Your task to perform on an android device: toggle show notifications on the lock screen Image 0: 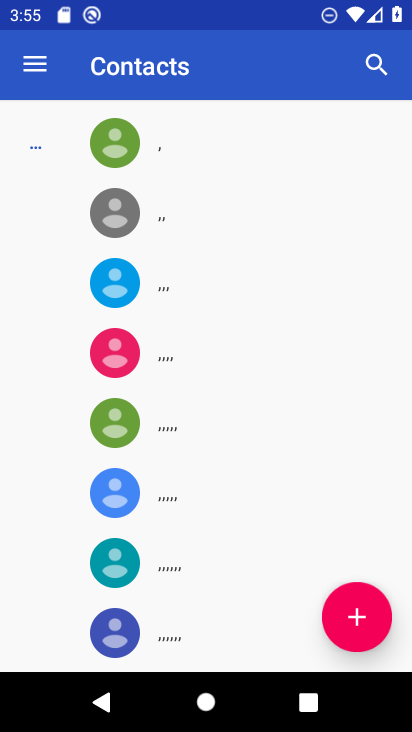
Step 0: press home button
Your task to perform on an android device: toggle show notifications on the lock screen Image 1: 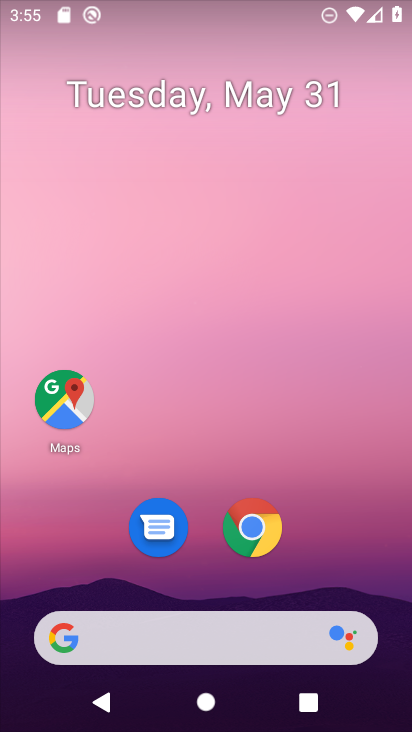
Step 1: drag from (208, 592) to (222, 7)
Your task to perform on an android device: toggle show notifications on the lock screen Image 2: 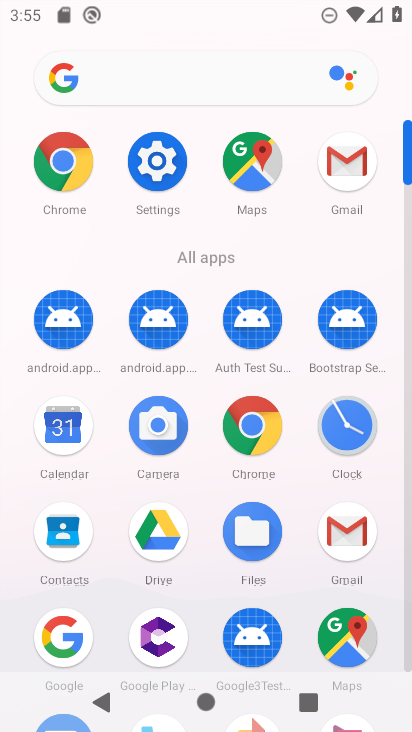
Step 2: click (155, 182)
Your task to perform on an android device: toggle show notifications on the lock screen Image 3: 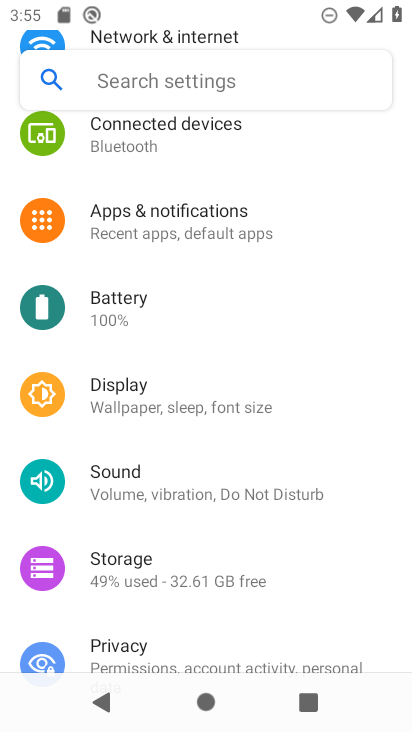
Step 3: click (134, 231)
Your task to perform on an android device: toggle show notifications on the lock screen Image 4: 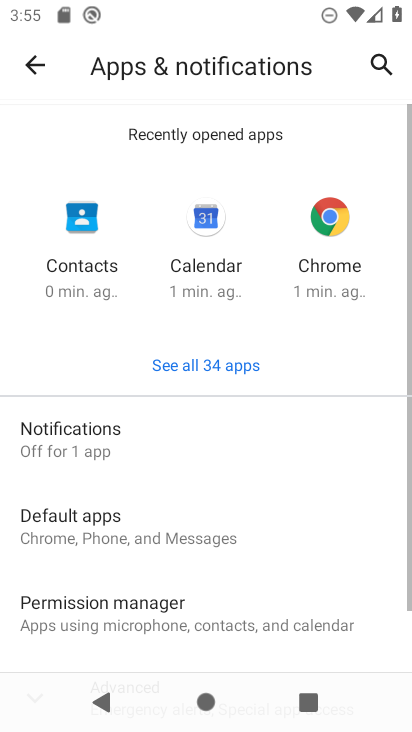
Step 4: click (58, 430)
Your task to perform on an android device: toggle show notifications on the lock screen Image 5: 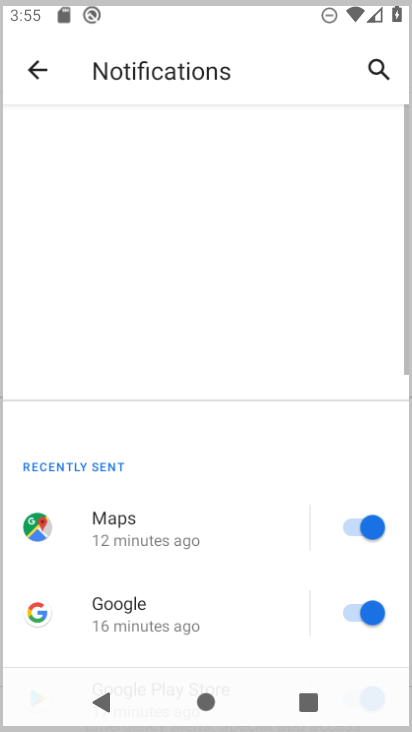
Step 5: drag from (265, 659) to (243, 64)
Your task to perform on an android device: toggle show notifications on the lock screen Image 6: 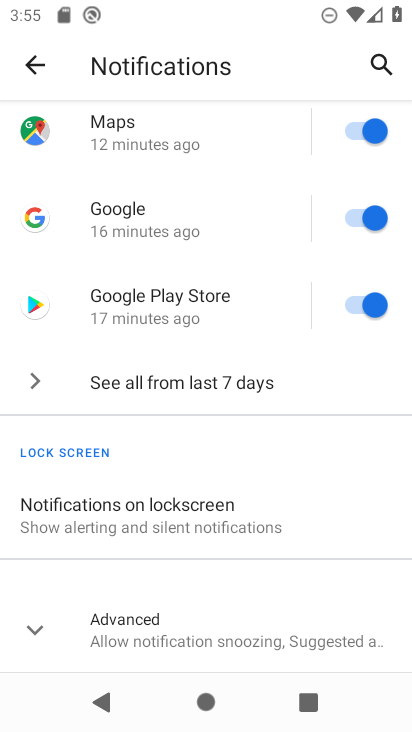
Step 6: click (203, 522)
Your task to perform on an android device: toggle show notifications on the lock screen Image 7: 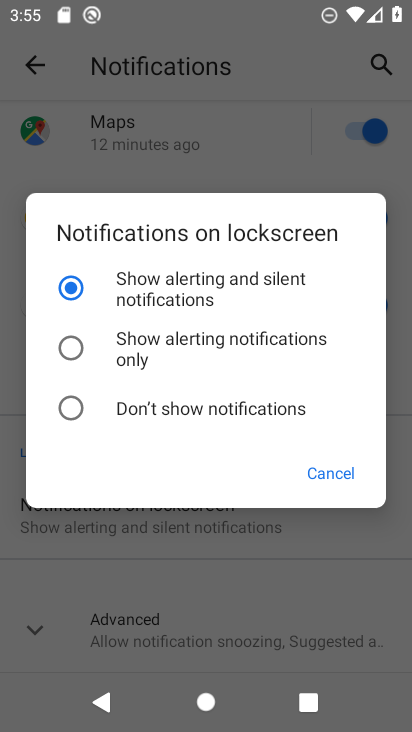
Step 7: click (160, 330)
Your task to perform on an android device: toggle show notifications on the lock screen Image 8: 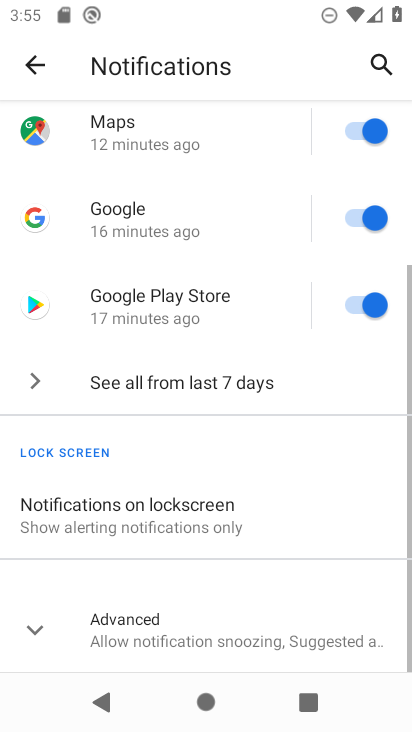
Step 8: task complete